Your task to perform on an android device: add a label to a message in the gmail app Image 0: 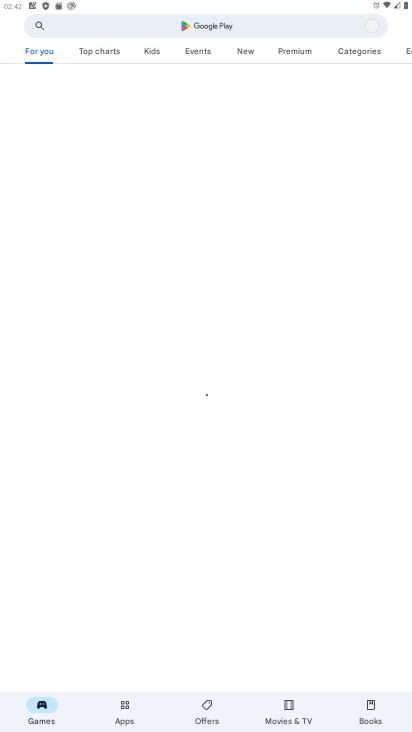
Step 0: press home button
Your task to perform on an android device: add a label to a message in the gmail app Image 1: 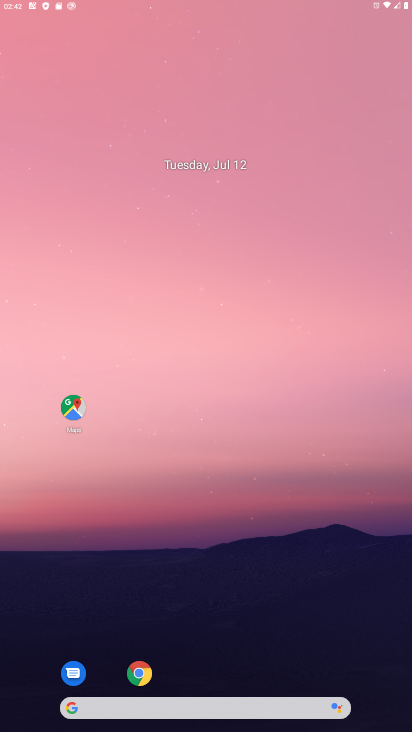
Step 1: drag from (247, 615) to (260, 158)
Your task to perform on an android device: add a label to a message in the gmail app Image 2: 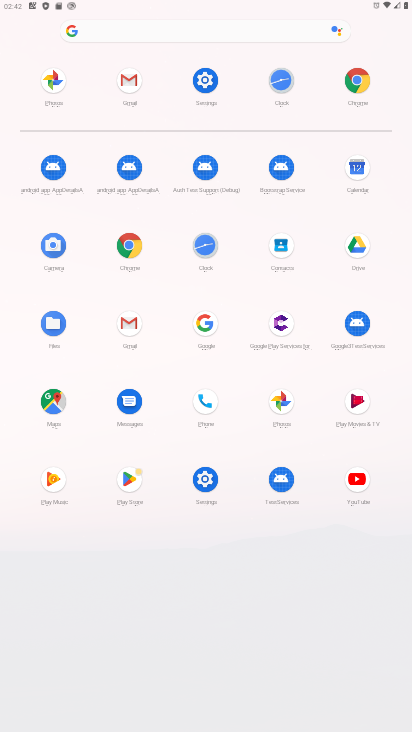
Step 2: click (140, 85)
Your task to perform on an android device: add a label to a message in the gmail app Image 3: 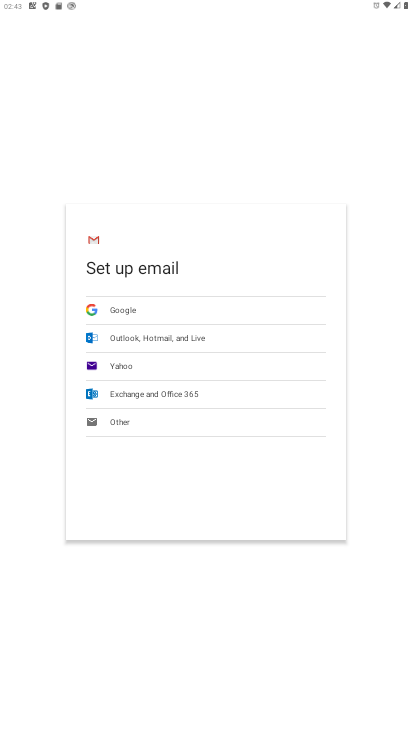
Step 3: click (275, 530)
Your task to perform on an android device: add a label to a message in the gmail app Image 4: 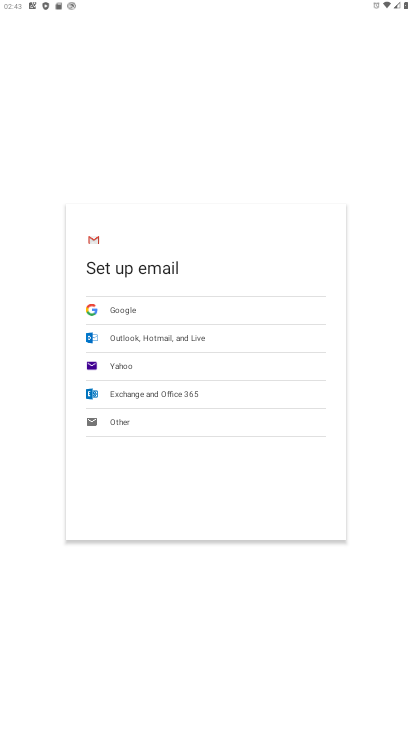
Step 4: click (304, 514)
Your task to perform on an android device: add a label to a message in the gmail app Image 5: 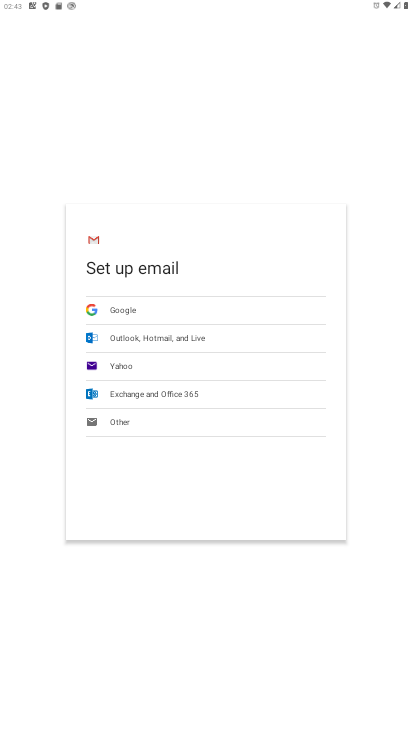
Step 5: click (350, 605)
Your task to perform on an android device: add a label to a message in the gmail app Image 6: 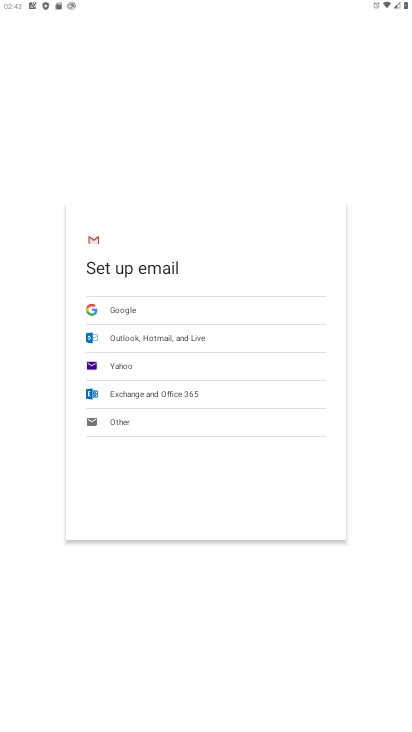
Step 6: click (359, 681)
Your task to perform on an android device: add a label to a message in the gmail app Image 7: 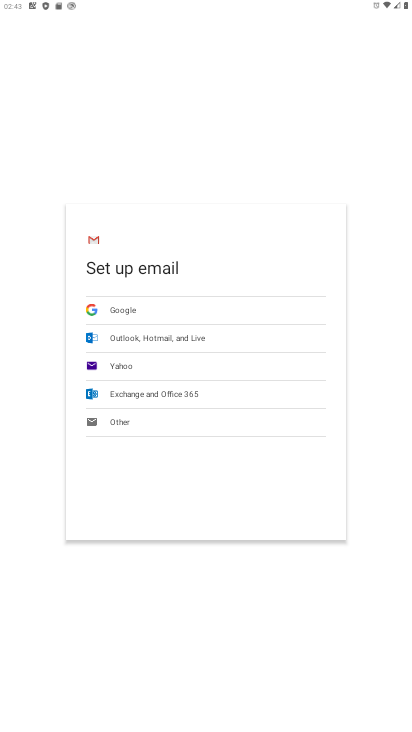
Step 7: task complete